Your task to perform on an android device: turn on priority inbox in the gmail app Image 0: 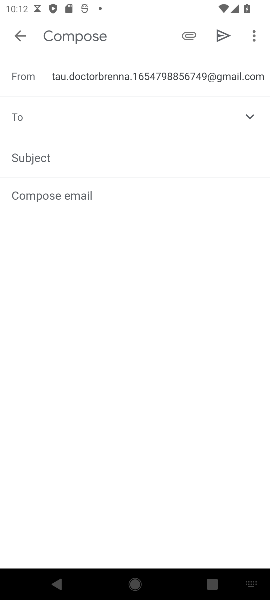
Step 0: press home button
Your task to perform on an android device: turn on priority inbox in the gmail app Image 1: 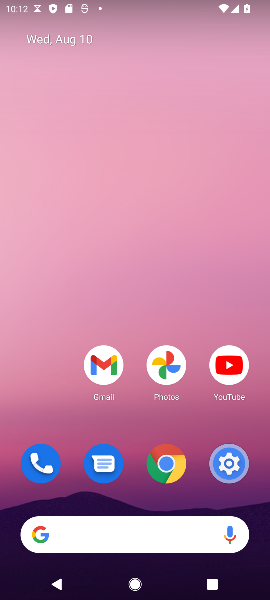
Step 1: click (110, 369)
Your task to perform on an android device: turn on priority inbox in the gmail app Image 2: 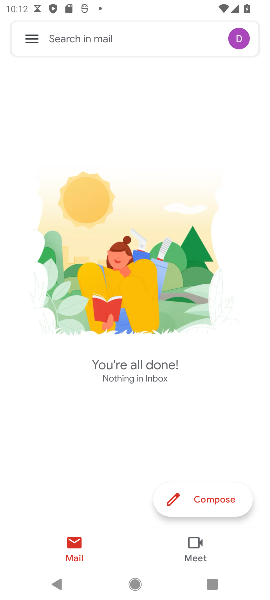
Step 2: click (24, 34)
Your task to perform on an android device: turn on priority inbox in the gmail app Image 3: 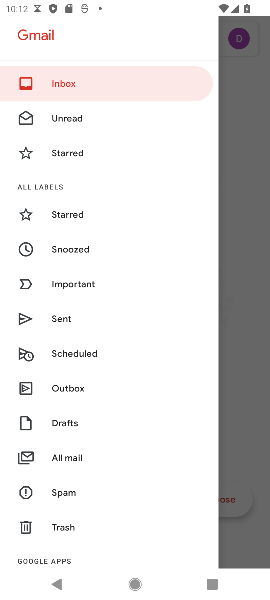
Step 3: drag from (142, 509) to (149, 148)
Your task to perform on an android device: turn on priority inbox in the gmail app Image 4: 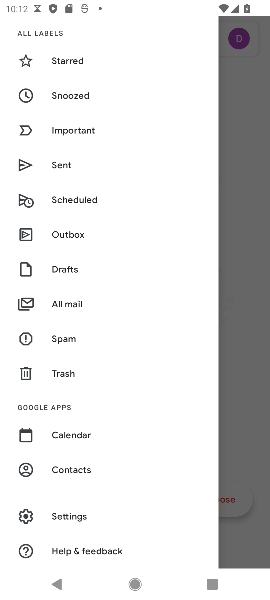
Step 4: click (58, 516)
Your task to perform on an android device: turn on priority inbox in the gmail app Image 5: 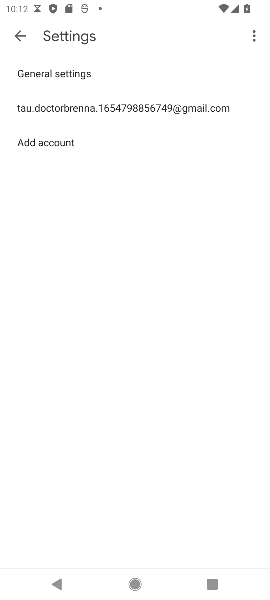
Step 5: click (89, 107)
Your task to perform on an android device: turn on priority inbox in the gmail app Image 6: 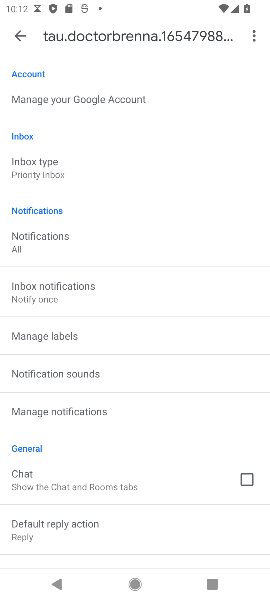
Step 6: task complete